Your task to perform on an android device: Open eBay Image 0: 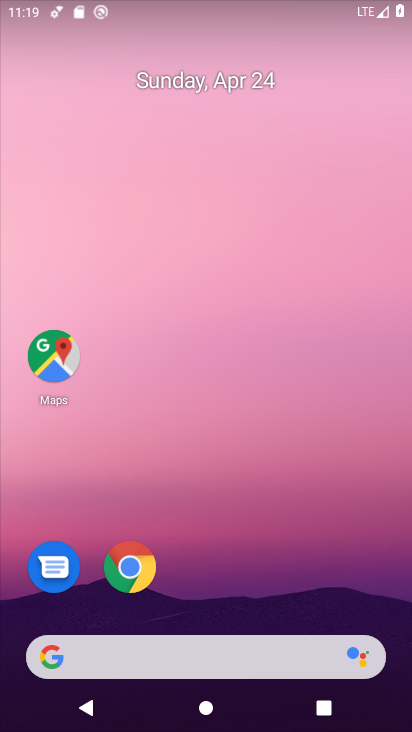
Step 0: drag from (306, 541) to (353, 274)
Your task to perform on an android device: Open eBay Image 1: 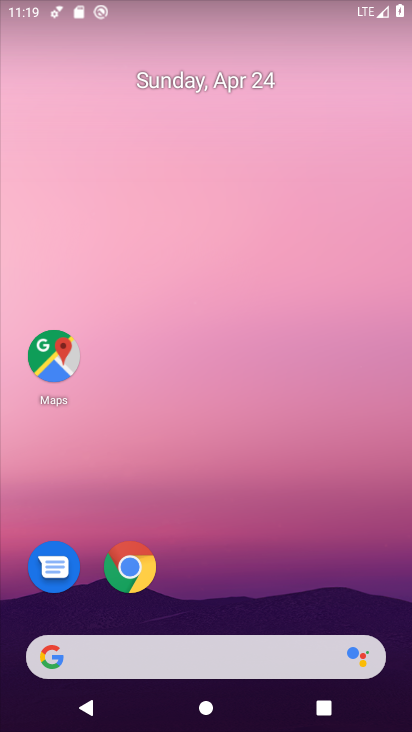
Step 1: drag from (265, 544) to (309, 220)
Your task to perform on an android device: Open eBay Image 2: 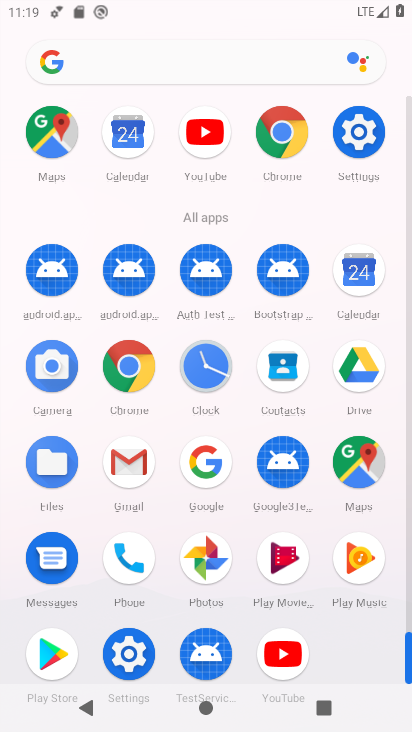
Step 2: click (131, 372)
Your task to perform on an android device: Open eBay Image 3: 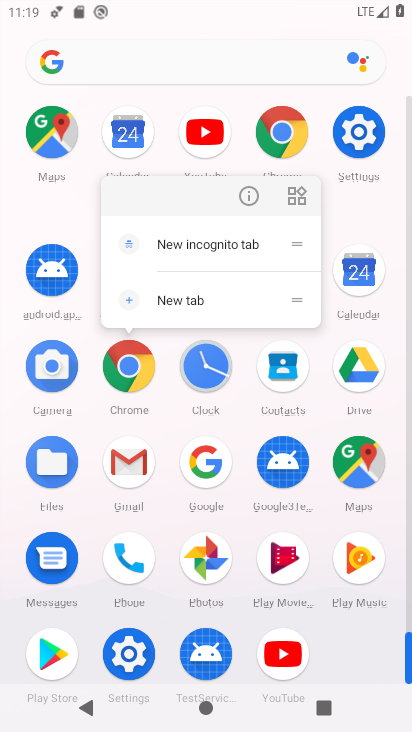
Step 3: click (125, 380)
Your task to perform on an android device: Open eBay Image 4: 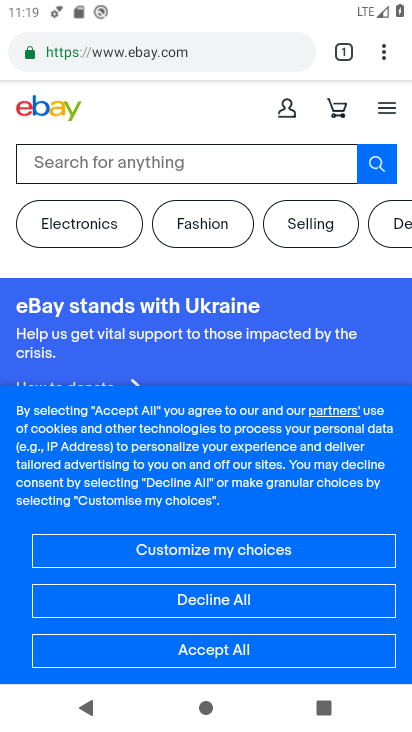
Step 4: task complete